Your task to perform on an android device: turn off translation in the chrome app Image 0: 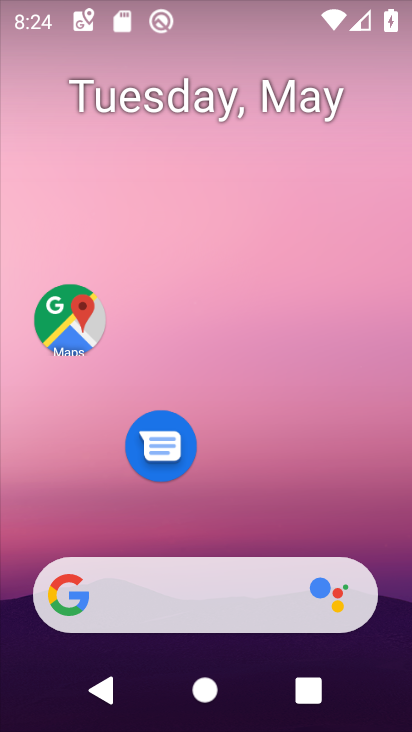
Step 0: drag from (177, 546) to (337, 529)
Your task to perform on an android device: turn off translation in the chrome app Image 1: 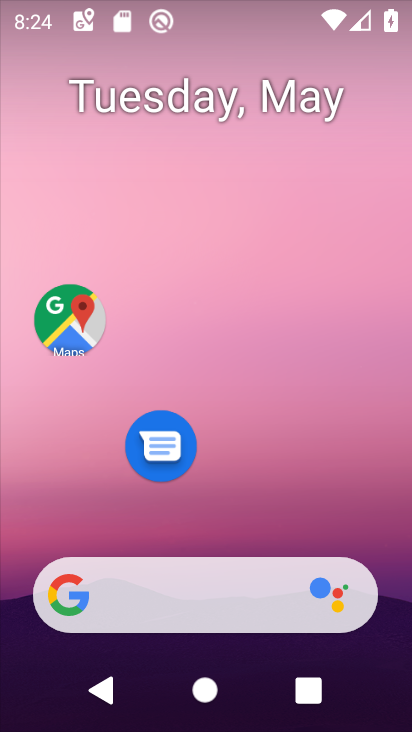
Step 1: drag from (200, 535) to (299, 632)
Your task to perform on an android device: turn off translation in the chrome app Image 2: 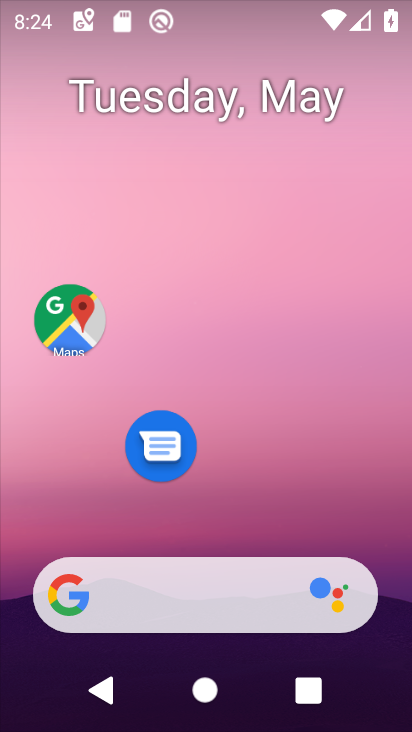
Step 2: click (247, 434)
Your task to perform on an android device: turn off translation in the chrome app Image 3: 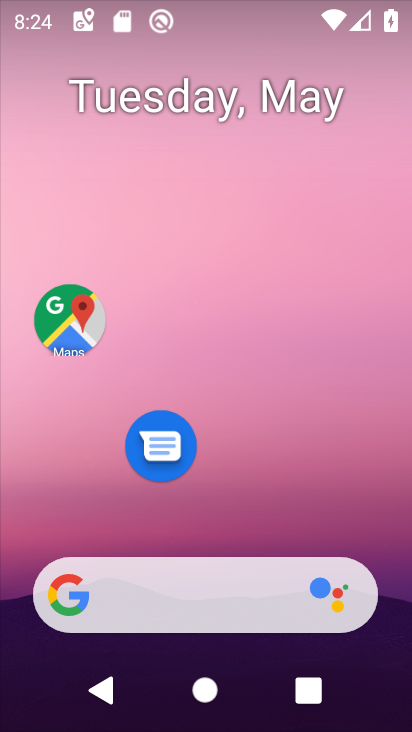
Step 3: drag from (243, 512) to (180, 24)
Your task to perform on an android device: turn off translation in the chrome app Image 4: 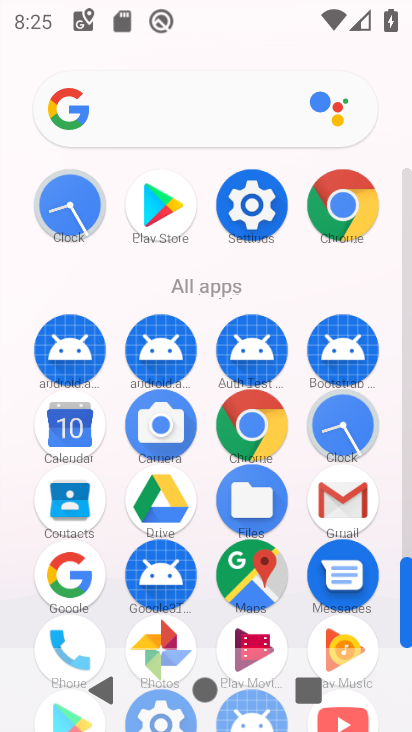
Step 4: click (260, 444)
Your task to perform on an android device: turn off translation in the chrome app Image 5: 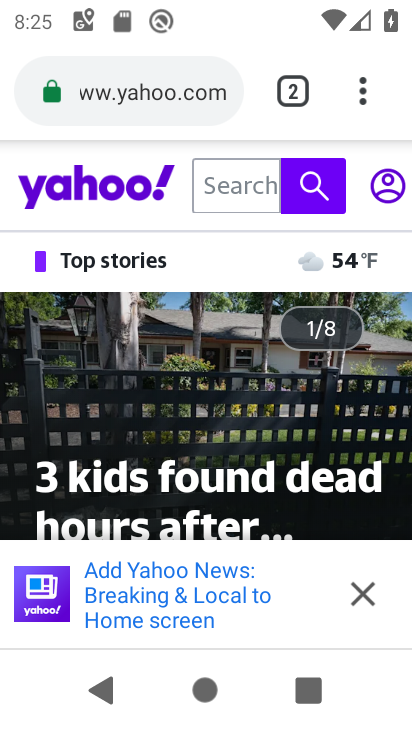
Step 5: click (360, 102)
Your task to perform on an android device: turn off translation in the chrome app Image 6: 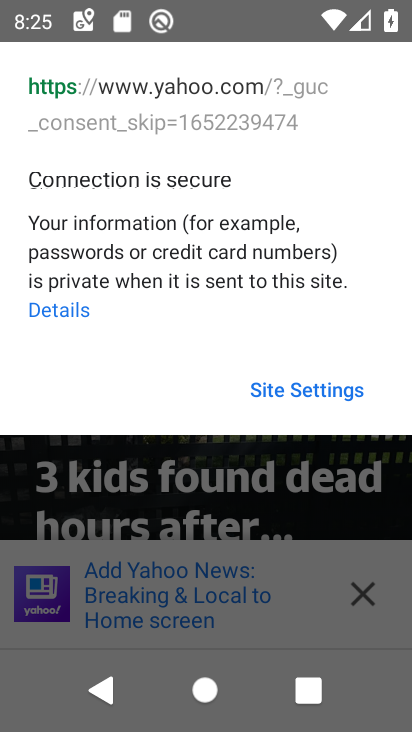
Step 6: click (306, 401)
Your task to perform on an android device: turn off translation in the chrome app Image 7: 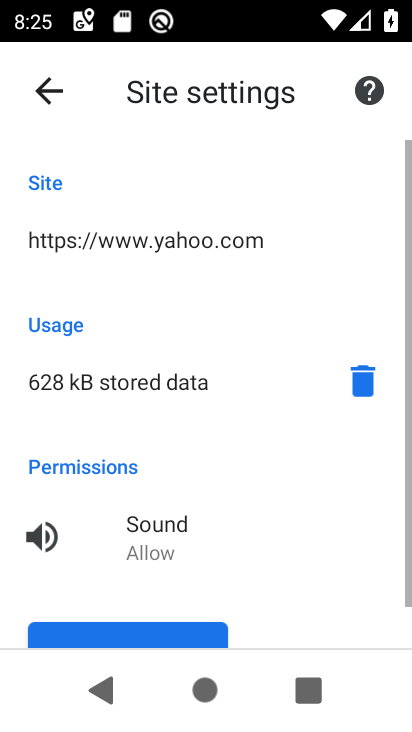
Step 7: drag from (362, 92) to (48, 92)
Your task to perform on an android device: turn off translation in the chrome app Image 8: 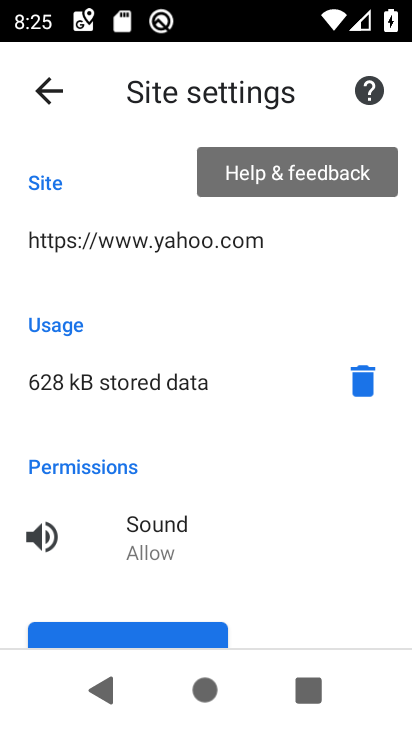
Step 8: click (47, 89)
Your task to perform on an android device: turn off translation in the chrome app Image 9: 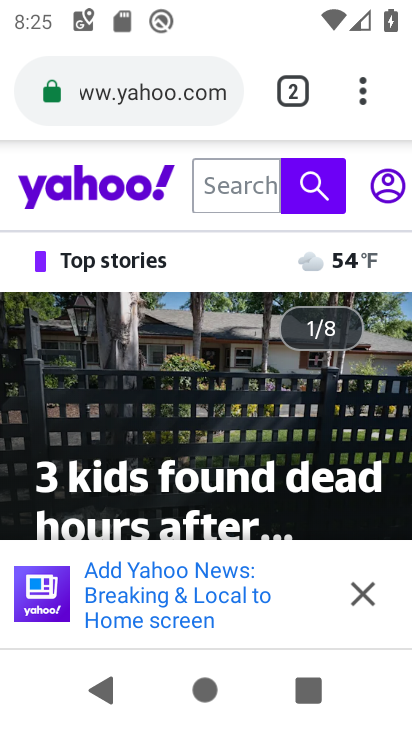
Step 9: click (358, 103)
Your task to perform on an android device: turn off translation in the chrome app Image 10: 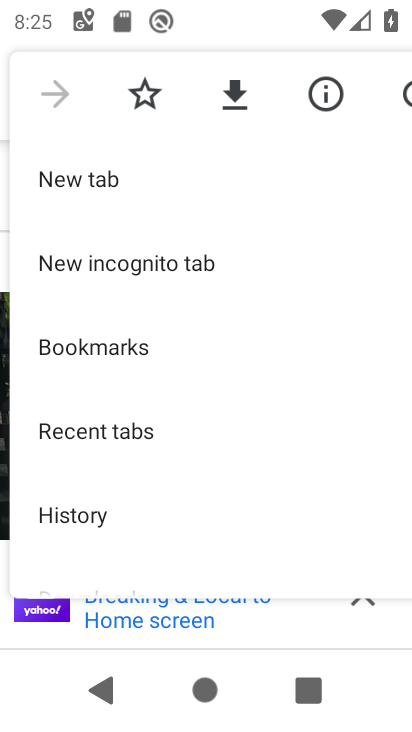
Step 10: drag from (117, 524) to (80, 76)
Your task to perform on an android device: turn off translation in the chrome app Image 11: 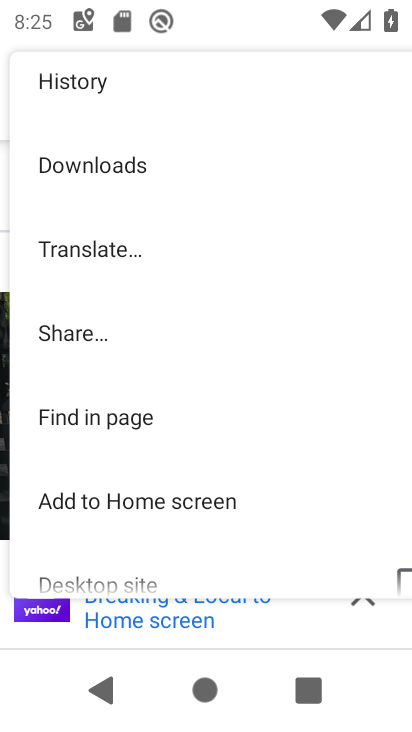
Step 11: drag from (76, 466) to (363, 35)
Your task to perform on an android device: turn off translation in the chrome app Image 12: 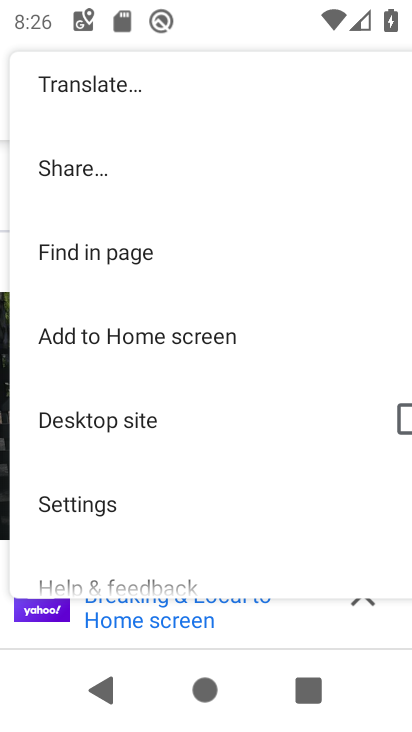
Step 12: click (75, 490)
Your task to perform on an android device: turn off translation in the chrome app Image 13: 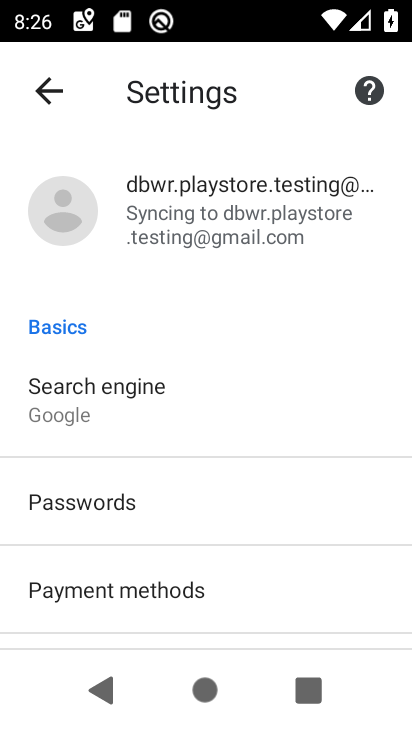
Step 13: drag from (162, 478) to (144, 146)
Your task to perform on an android device: turn off translation in the chrome app Image 14: 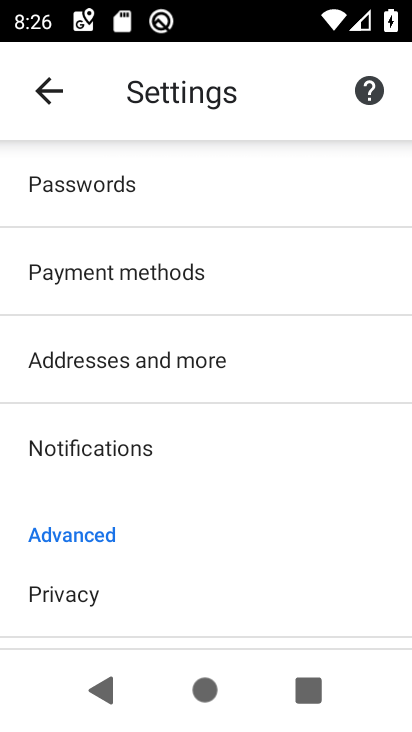
Step 14: drag from (113, 582) to (93, 116)
Your task to perform on an android device: turn off translation in the chrome app Image 15: 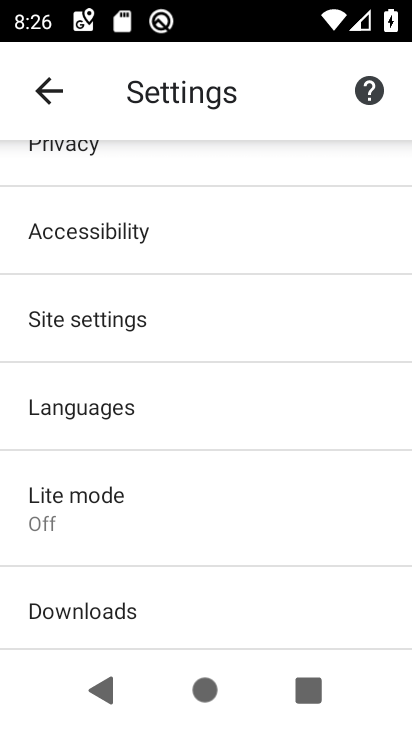
Step 15: click (102, 409)
Your task to perform on an android device: turn off translation in the chrome app Image 16: 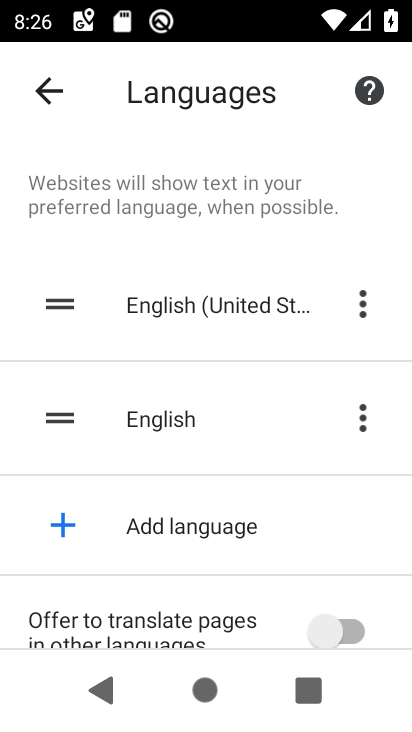
Step 16: task complete